Your task to perform on an android device: change the upload size in google photos Image 0: 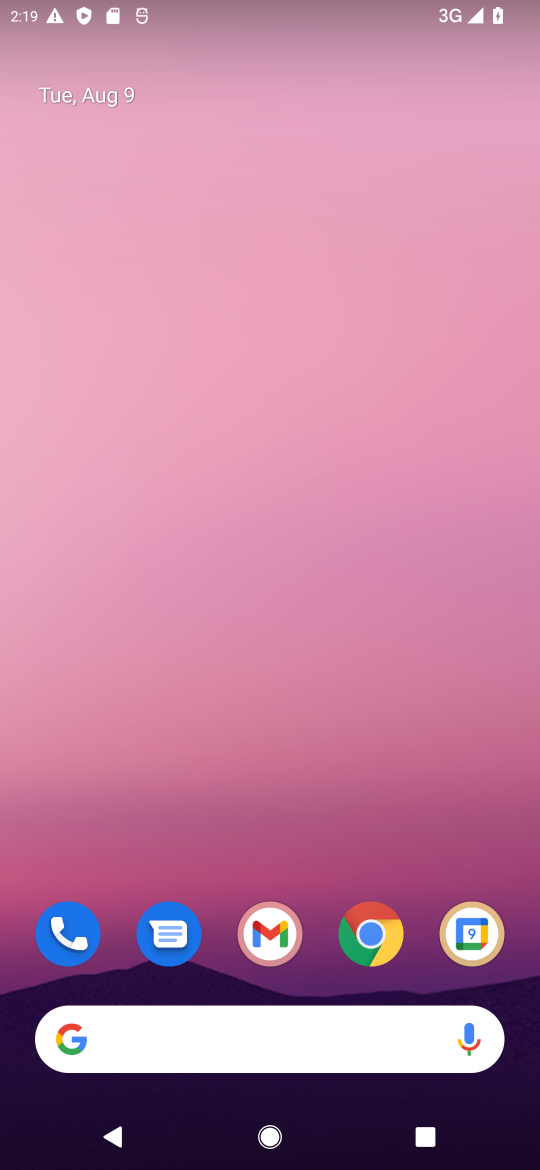
Step 0: drag from (327, 996) to (384, 17)
Your task to perform on an android device: change the upload size in google photos Image 1: 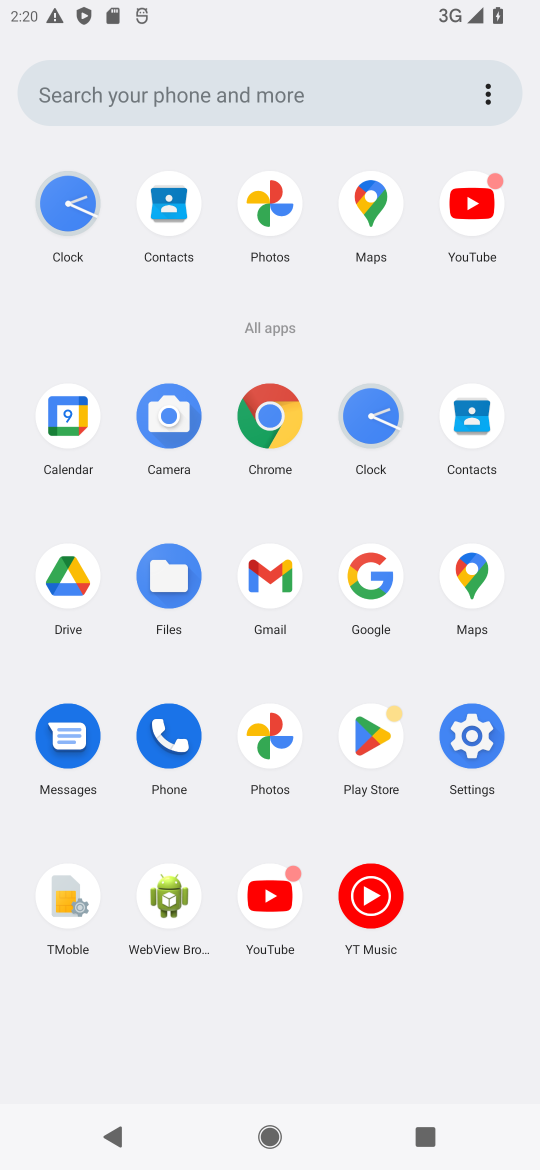
Step 1: click (268, 763)
Your task to perform on an android device: change the upload size in google photos Image 2: 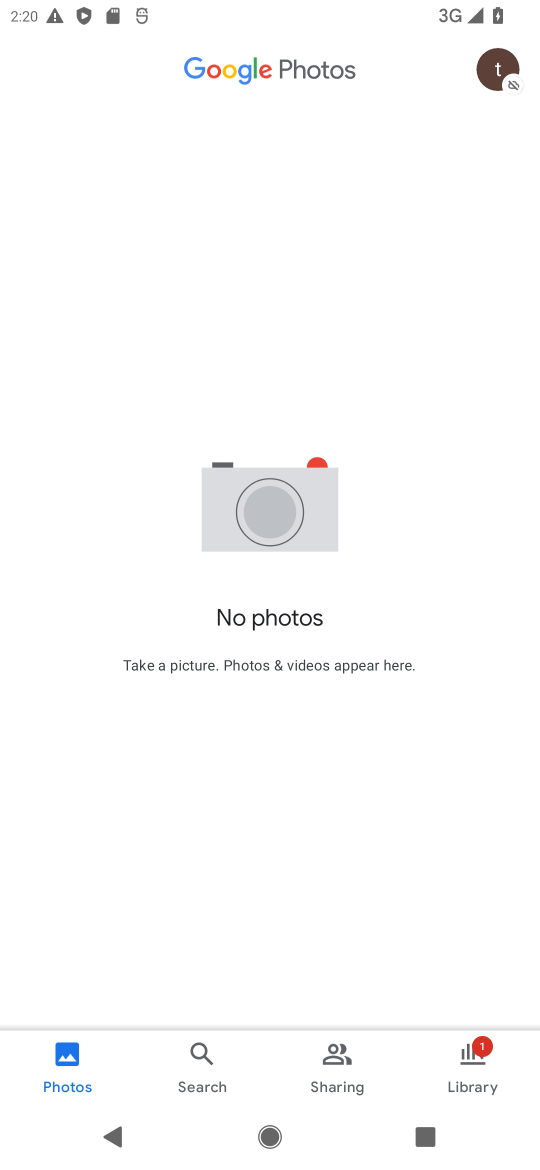
Step 2: task complete